Your task to perform on an android device: Open Yahoo.com Image 0: 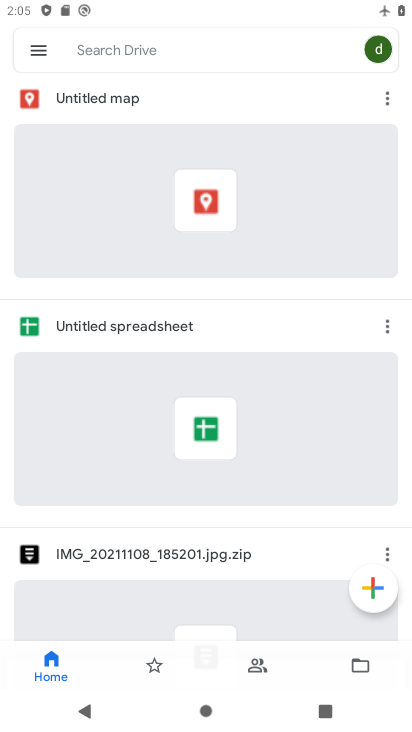
Step 0: press home button
Your task to perform on an android device: Open Yahoo.com Image 1: 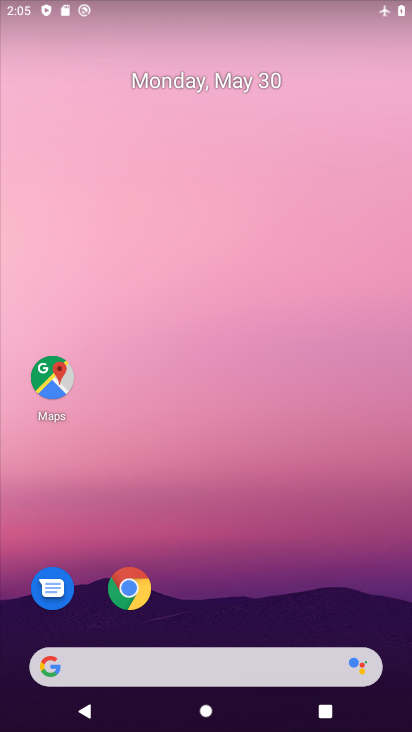
Step 1: drag from (226, 629) to (184, 241)
Your task to perform on an android device: Open Yahoo.com Image 2: 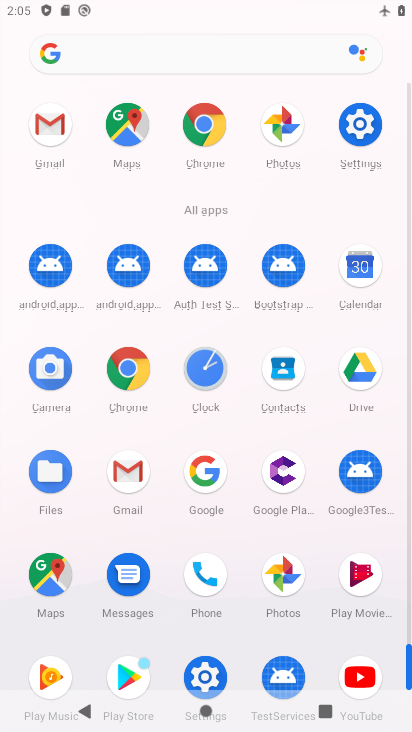
Step 2: click (136, 470)
Your task to perform on an android device: Open Yahoo.com Image 3: 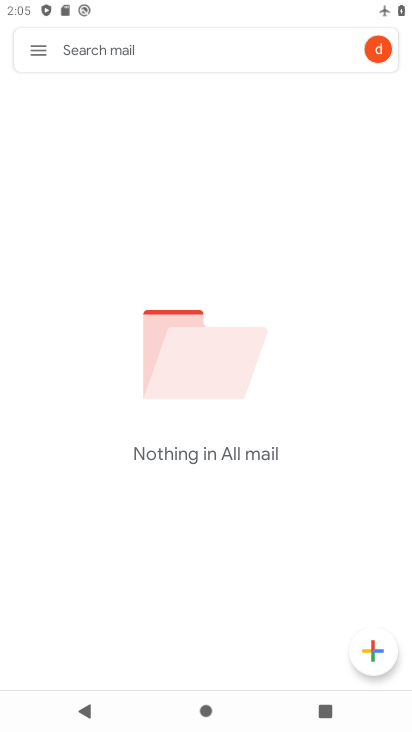
Step 3: press home button
Your task to perform on an android device: Open Yahoo.com Image 4: 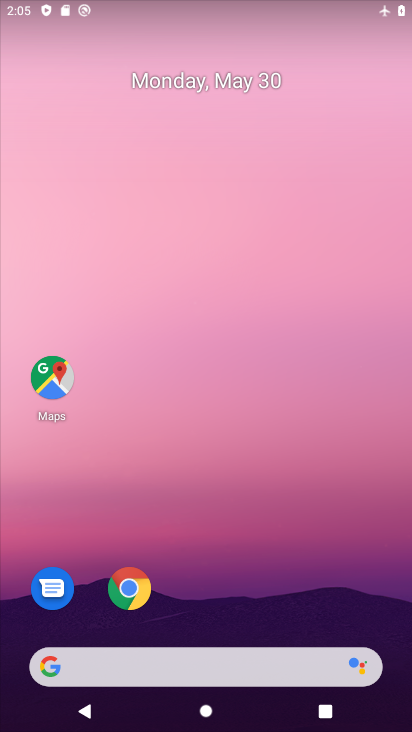
Step 4: click (141, 584)
Your task to perform on an android device: Open Yahoo.com Image 5: 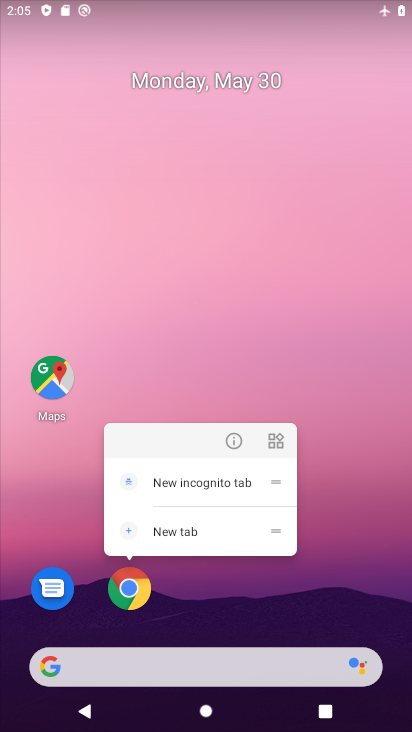
Step 5: click (131, 577)
Your task to perform on an android device: Open Yahoo.com Image 6: 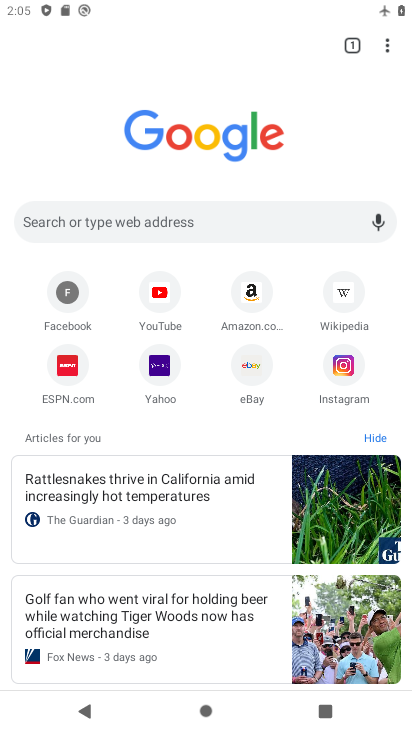
Step 6: click (168, 368)
Your task to perform on an android device: Open Yahoo.com Image 7: 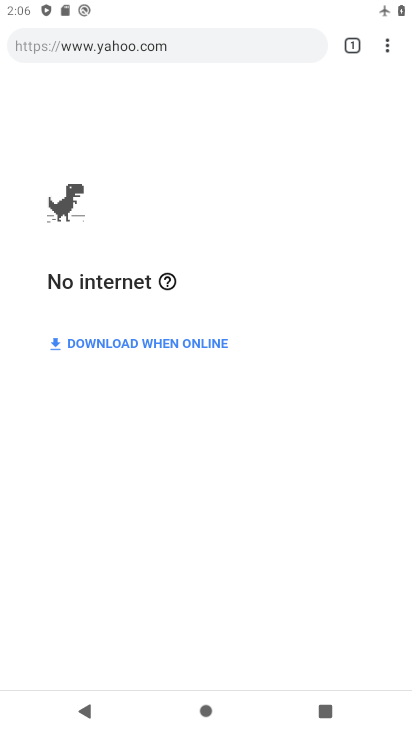
Step 7: task complete